Your task to perform on an android device: toggle airplane mode Image 0: 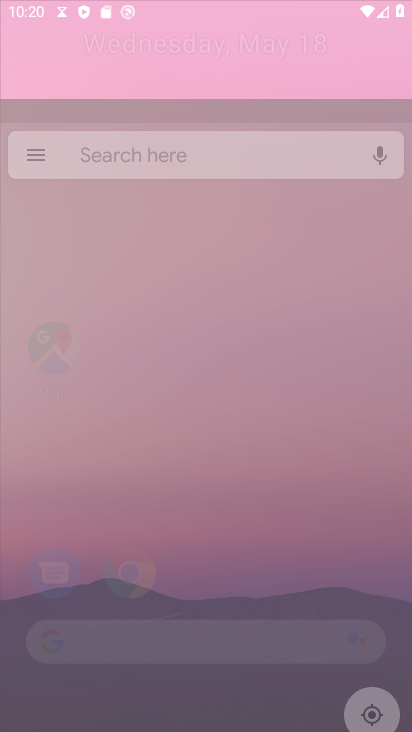
Step 0: drag from (227, 394) to (221, 16)
Your task to perform on an android device: toggle airplane mode Image 1: 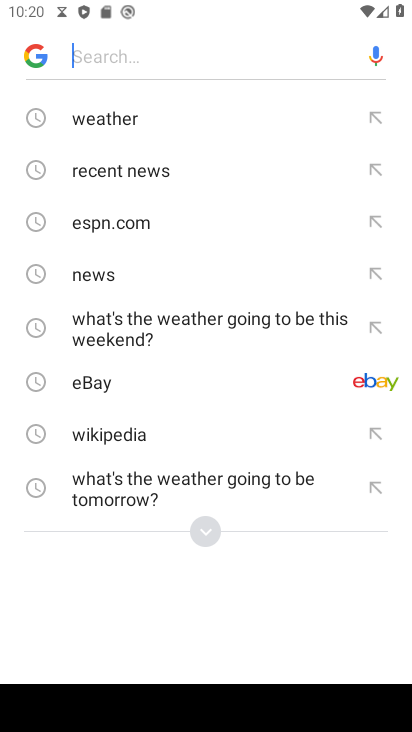
Step 1: press back button
Your task to perform on an android device: toggle airplane mode Image 2: 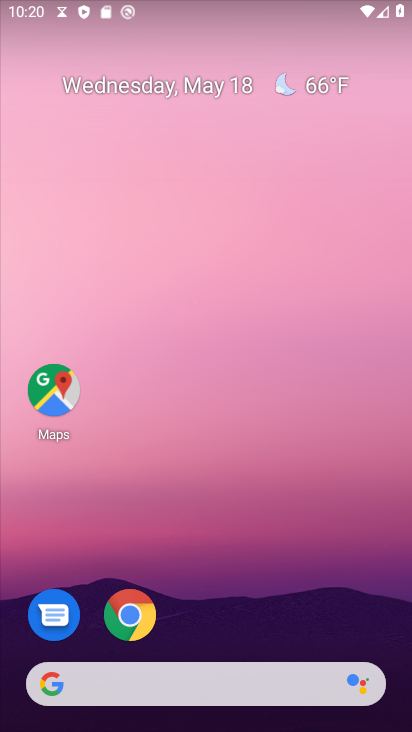
Step 2: drag from (287, 602) to (230, 32)
Your task to perform on an android device: toggle airplane mode Image 3: 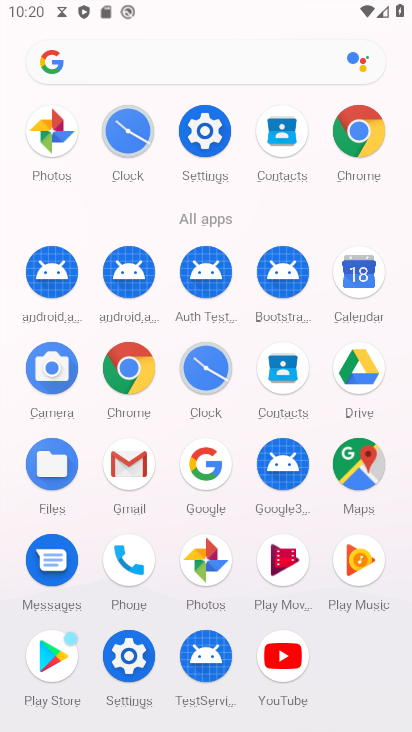
Step 3: click (201, 128)
Your task to perform on an android device: toggle airplane mode Image 4: 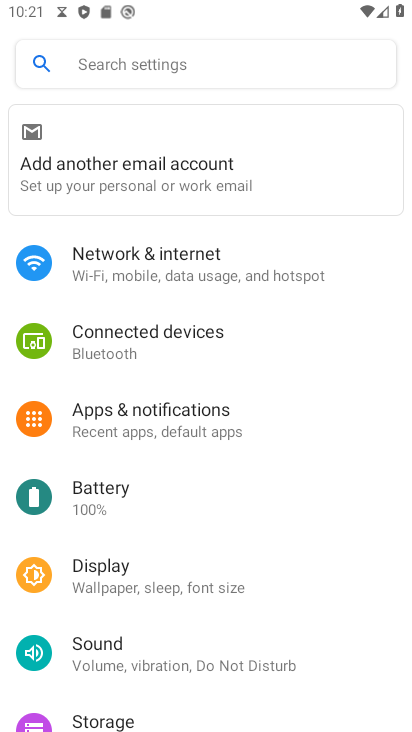
Step 4: click (209, 270)
Your task to perform on an android device: toggle airplane mode Image 5: 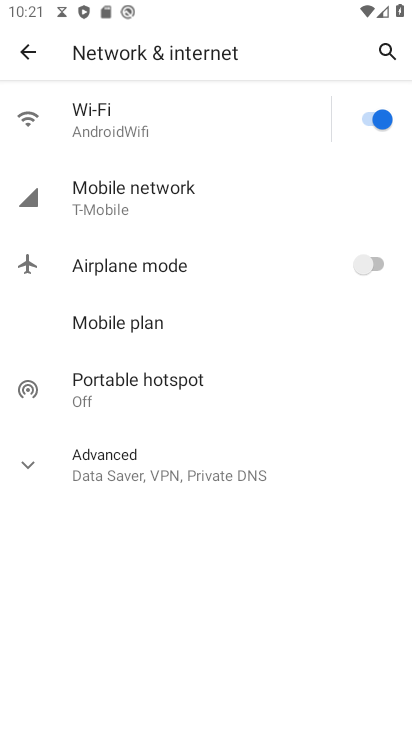
Step 5: click (70, 463)
Your task to perform on an android device: toggle airplane mode Image 6: 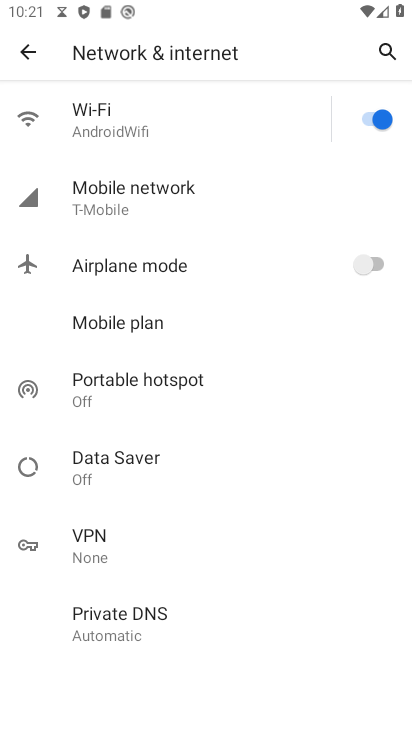
Step 6: click (369, 260)
Your task to perform on an android device: toggle airplane mode Image 7: 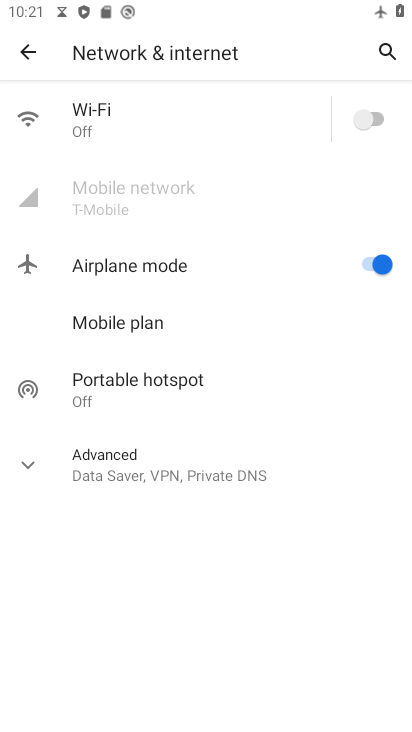
Step 7: task complete